Your task to perform on an android device: change the upload size in google photos Image 0: 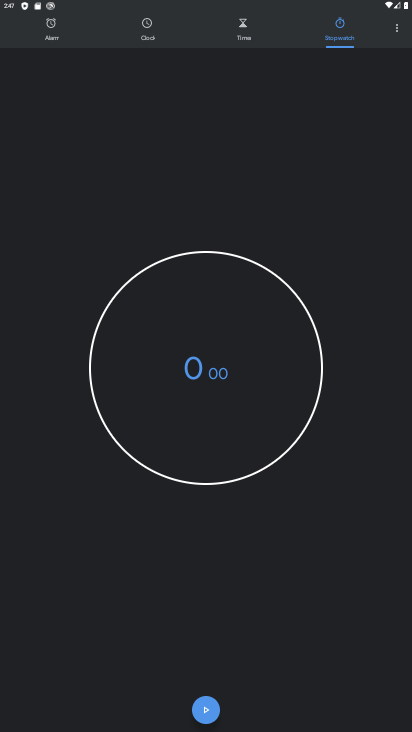
Step 0: press home button
Your task to perform on an android device: change the upload size in google photos Image 1: 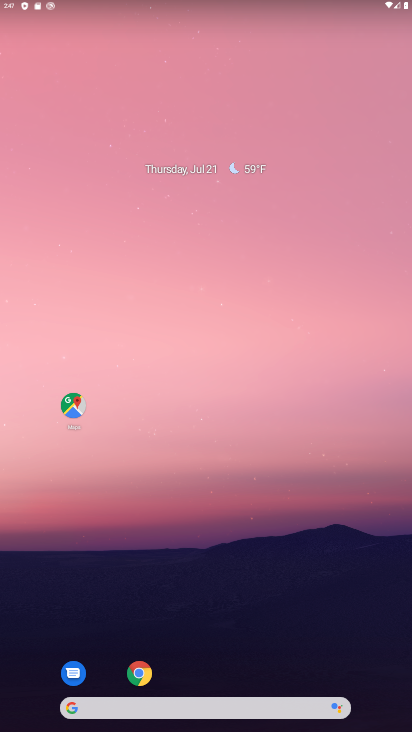
Step 1: drag from (381, 674) to (330, 129)
Your task to perform on an android device: change the upload size in google photos Image 2: 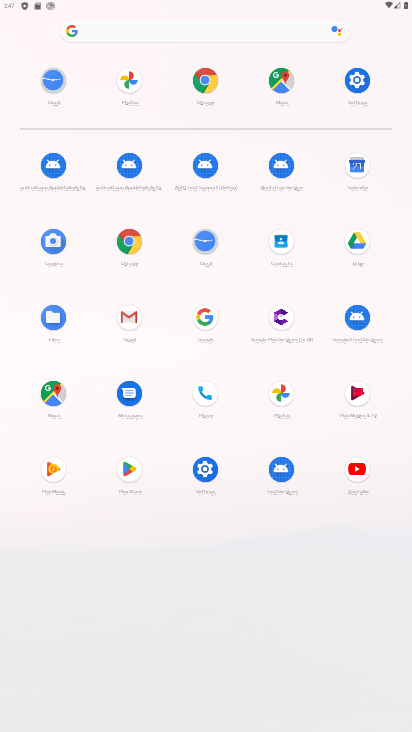
Step 2: click (281, 394)
Your task to perform on an android device: change the upload size in google photos Image 3: 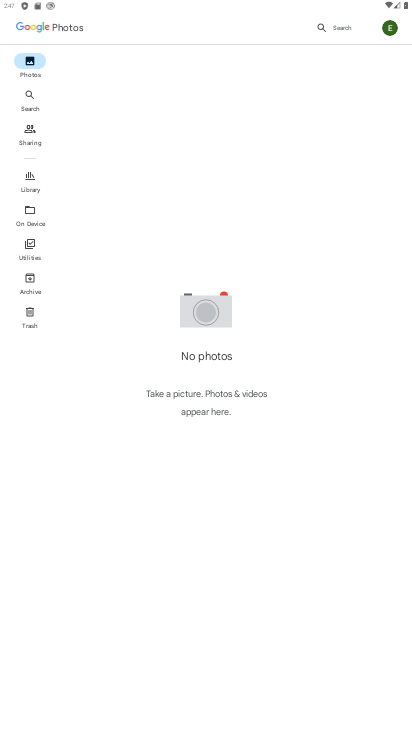
Step 3: click (390, 28)
Your task to perform on an android device: change the upload size in google photos Image 4: 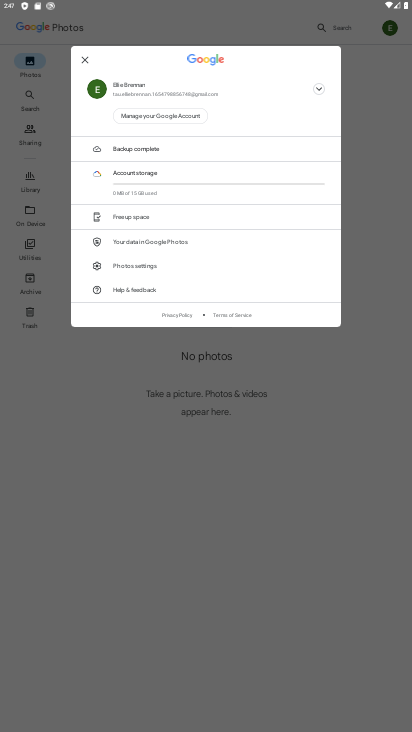
Step 4: click (122, 264)
Your task to perform on an android device: change the upload size in google photos Image 5: 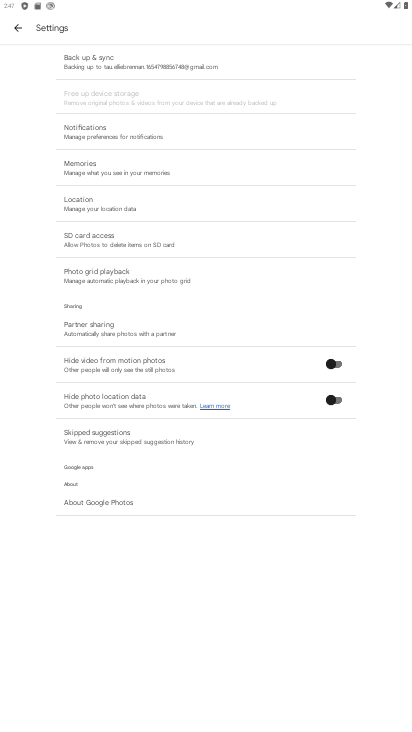
Step 5: click (83, 57)
Your task to perform on an android device: change the upload size in google photos Image 6: 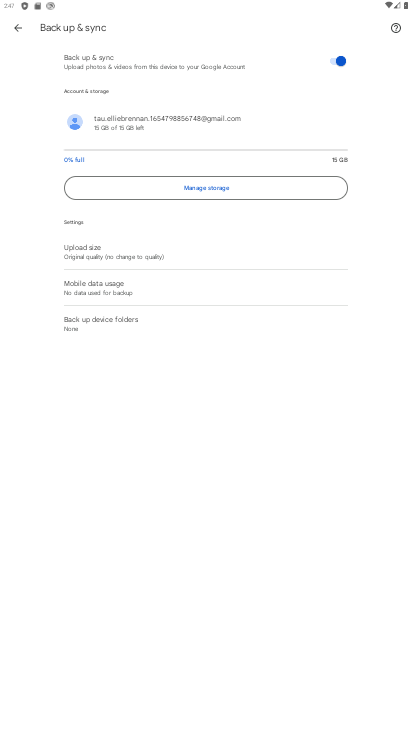
Step 6: click (94, 251)
Your task to perform on an android device: change the upload size in google photos Image 7: 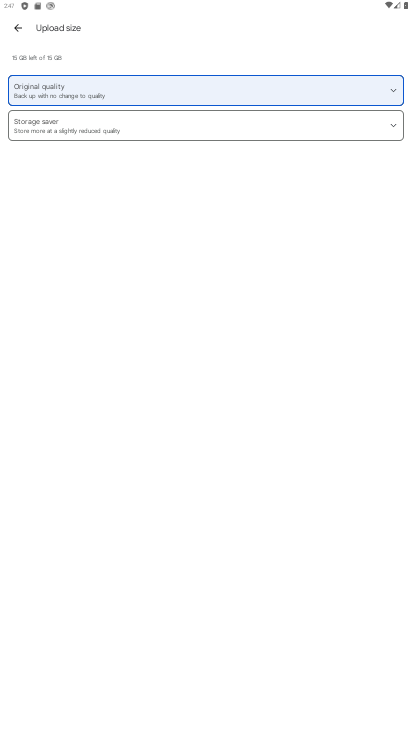
Step 7: click (46, 129)
Your task to perform on an android device: change the upload size in google photos Image 8: 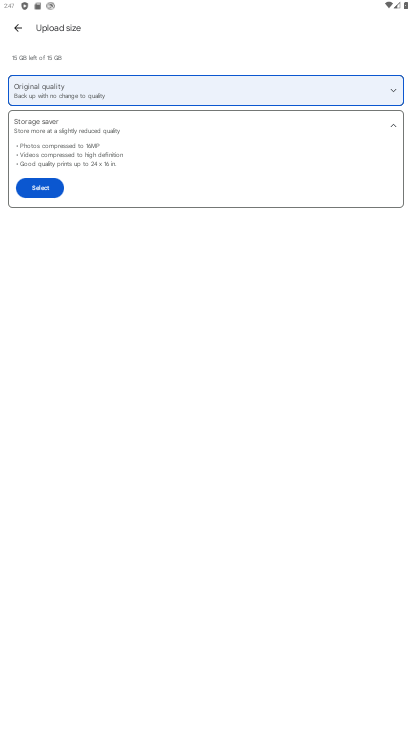
Step 8: click (33, 185)
Your task to perform on an android device: change the upload size in google photos Image 9: 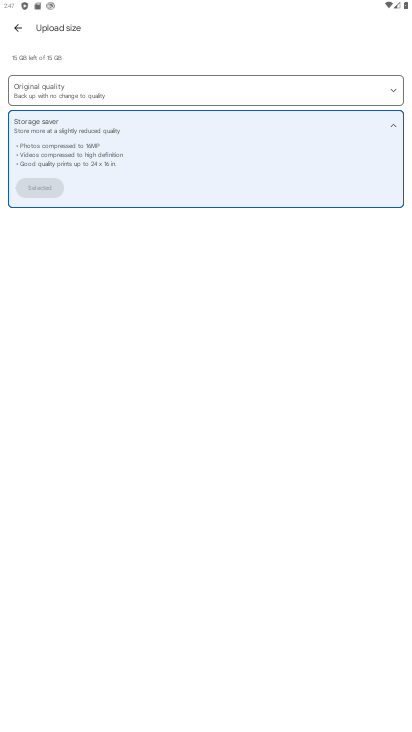
Step 9: task complete